Your task to perform on an android device: Go to eBay Image 0: 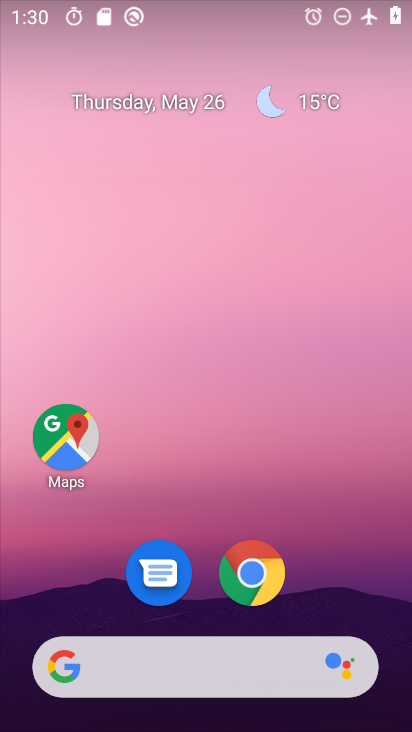
Step 0: click (249, 582)
Your task to perform on an android device: Go to eBay Image 1: 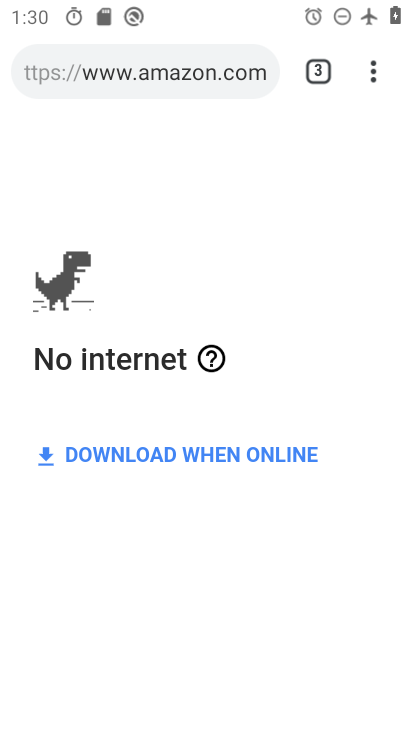
Step 1: click (116, 83)
Your task to perform on an android device: Go to eBay Image 2: 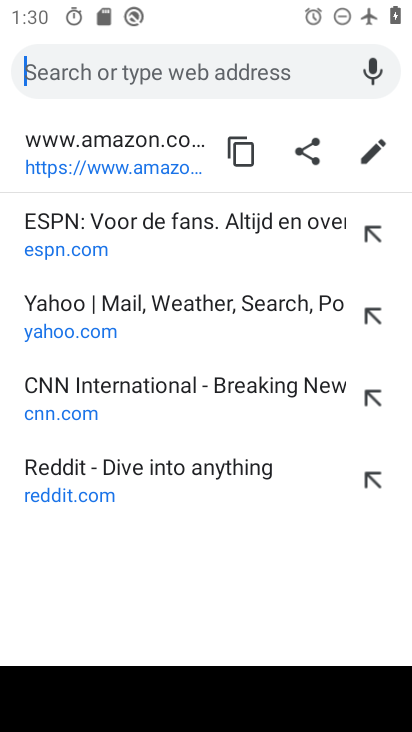
Step 2: type "ebay"
Your task to perform on an android device: Go to eBay Image 3: 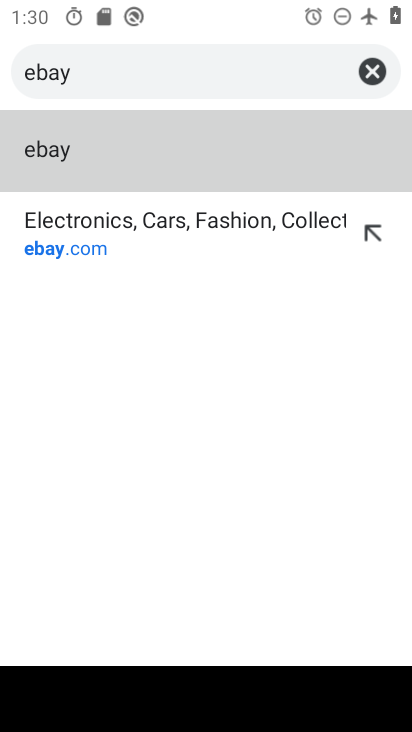
Step 3: click (36, 157)
Your task to perform on an android device: Go to eBay Image 4: 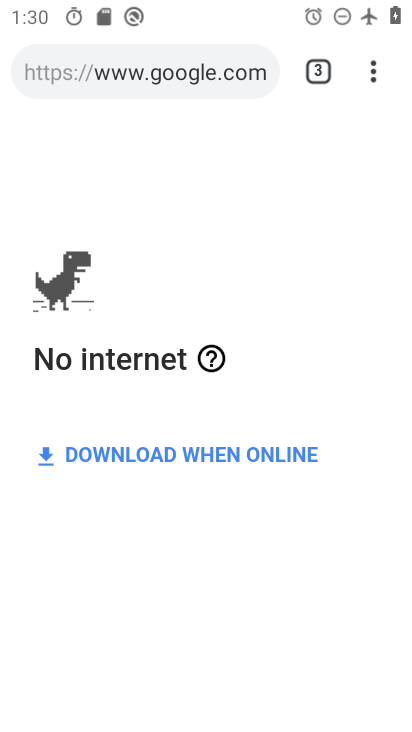
Step 4: task complete